Your task to perform on an android device: snooze an email in the gmail app Image 0: 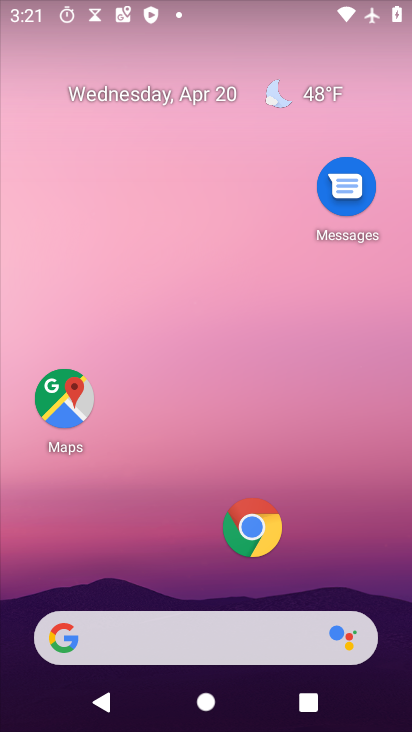
Step 0: drag from (198, 575) to (337, 81)
Your task to perform on an android device: snooze an email in the gmail app Image 1: 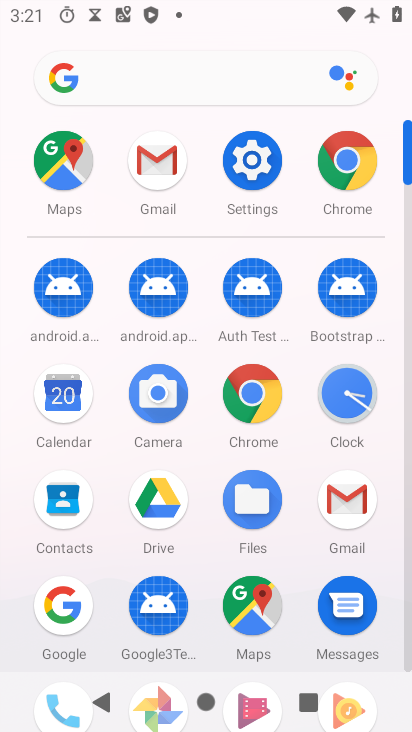
Step 1: click (155, 169)
Your task to perform on an android device: snooze an email in the gmail app Image 2: 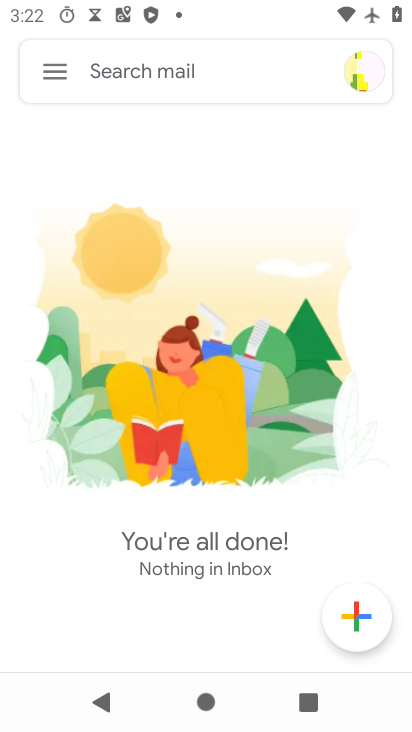
Step 2: task complete